Your task to perform on an android device: Open the calendar and show me this week's events Image 0: 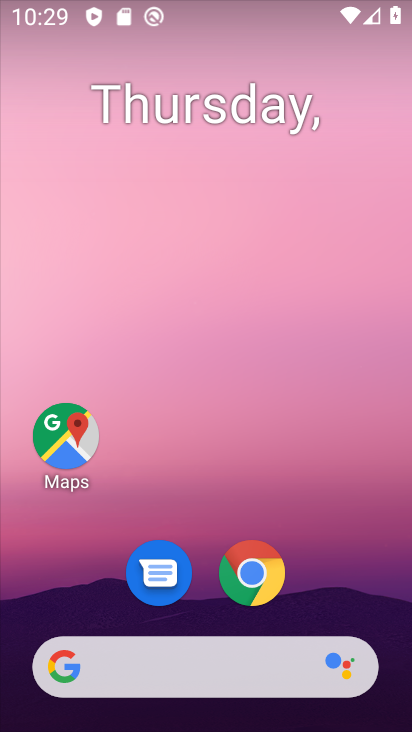
Step 0: drag from (347, 545) to (358, 152)
Your task to perform on an android device: Open the calendar and show me this week's events Image 1: 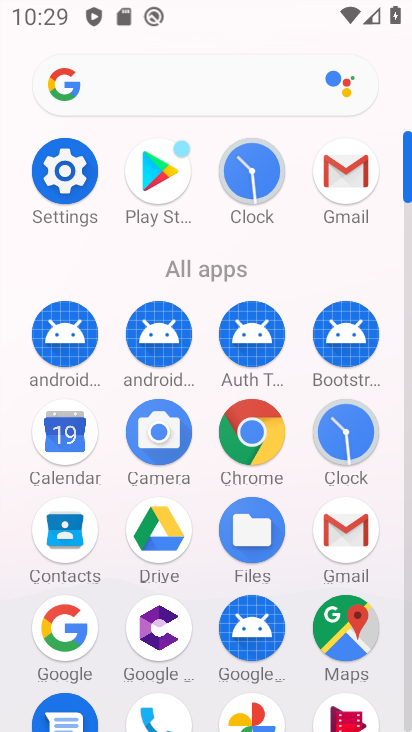
Step 1: click (67, 442)
Your task to perform on an android device: Open the calendar and show me this week's events Image 2: 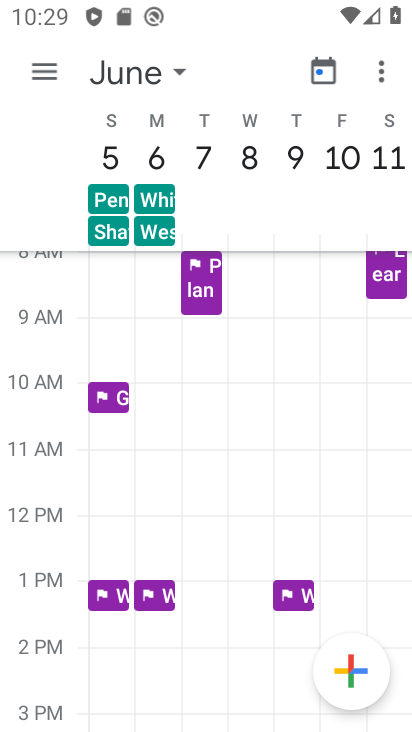
Step 2: click (122, 79)
Your task to perform on an android device: Open the calendar and show me this week's events Image 3: 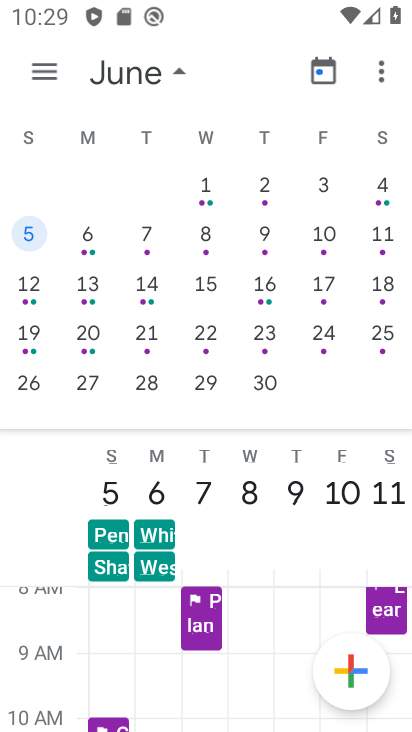
Step 3: drag from (99, 276) to (398, 293)
Your task to perform on an android device: Open the calendar and show me this week's events Image 4: 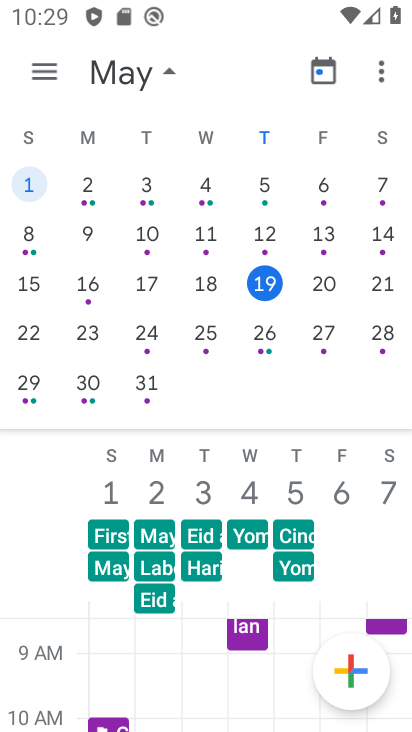
Step 4: click (265, 283)
Your task to perform on an android device: Open the calendar and show me this week's events Image 5: 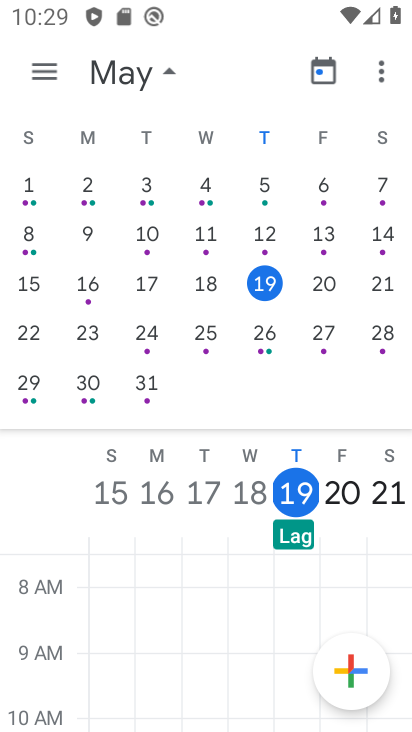
Step 5: task complete